Your task to perform on an android device: Do I have any events this weekend? Image 0: 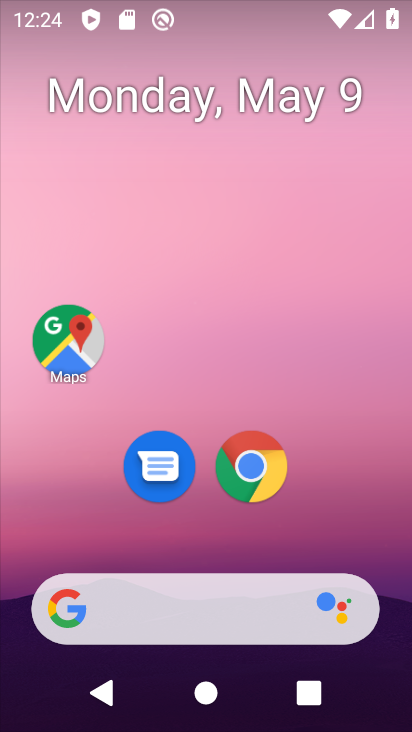
Step 0: drag from (388, 560) to (246, 99)
Your task to perform on an android device: Do I have any events this weekend? Image 1: 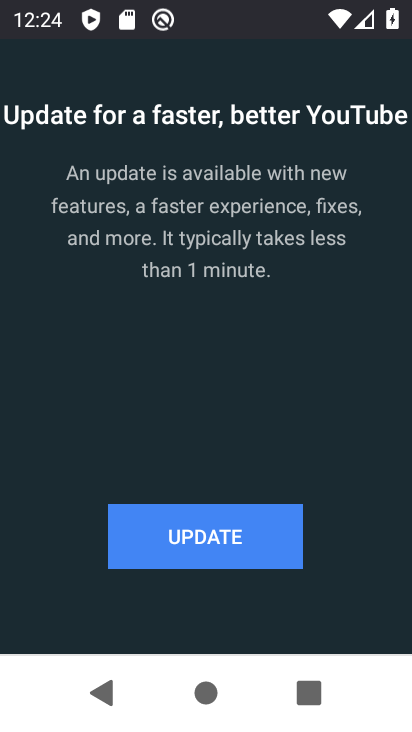
Step 1: press back button
Your task to perform on an android device: Do I have any events this weekend? Image 2: 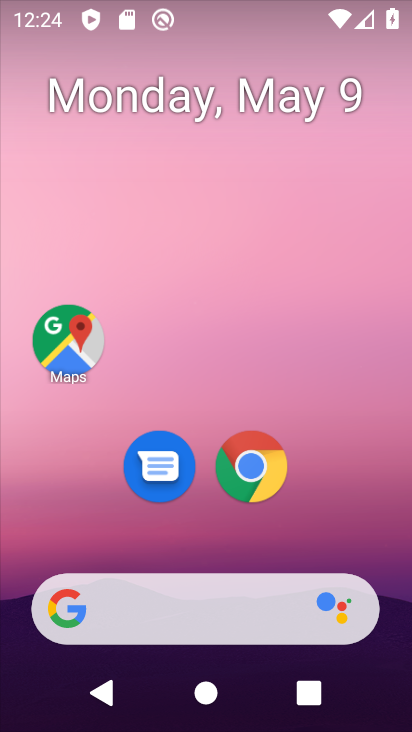
Step 2: drag from (400, 583) to (343, 181)
Your task to perform on an android device: Do I have any events this weekend? Image 3: 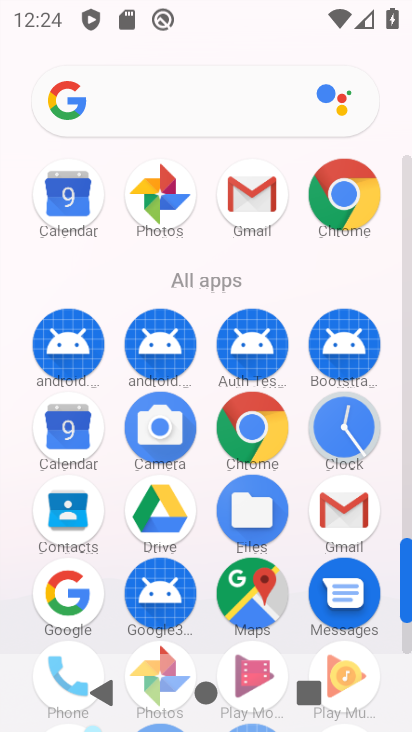
Step 3: click (61, 195)
Your task to perform on an android device: Do I have any events this weekend? Image 4: 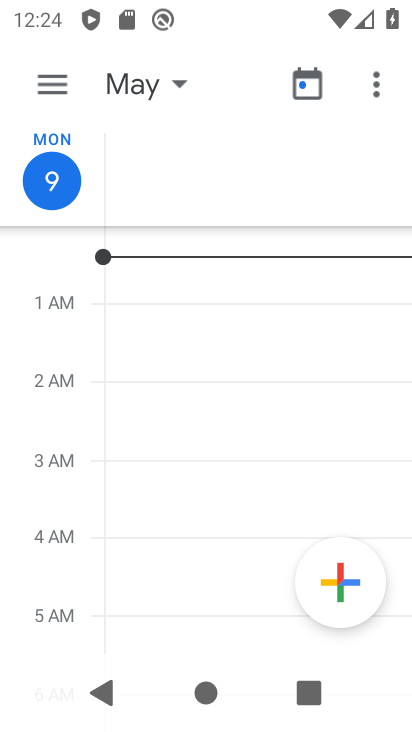
Step 4: click (44, 84)
Your task to perform on an android device: Do I have any events this weekend? Image 5: 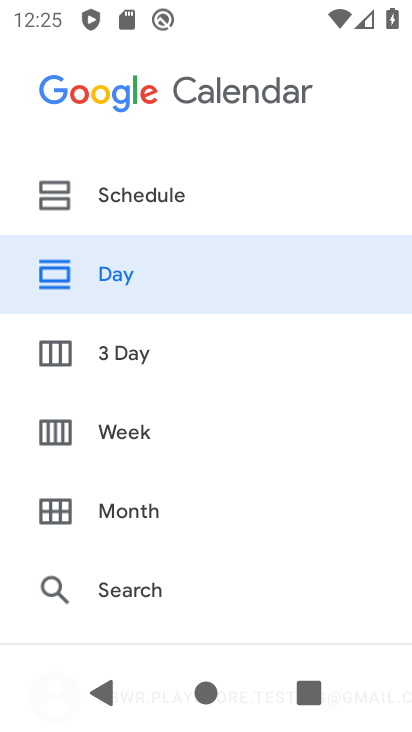
Step 5: click (180, 340)
Your task to perform on an android device: Do I have any events this weekend? Image 6: 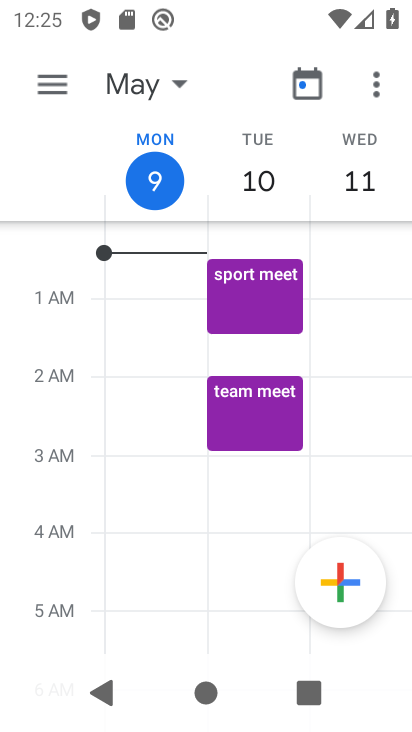
Step 6: click (171, 78)
Your task to perform on an android device: Do I have any events this weekend? Image 7: 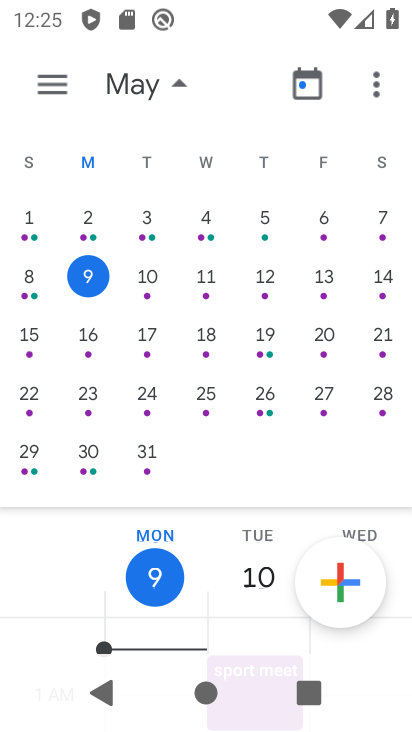
Step 7: click (322, 283)
Your task to perform on an android device: Do I have any events this weekend? Image 8: 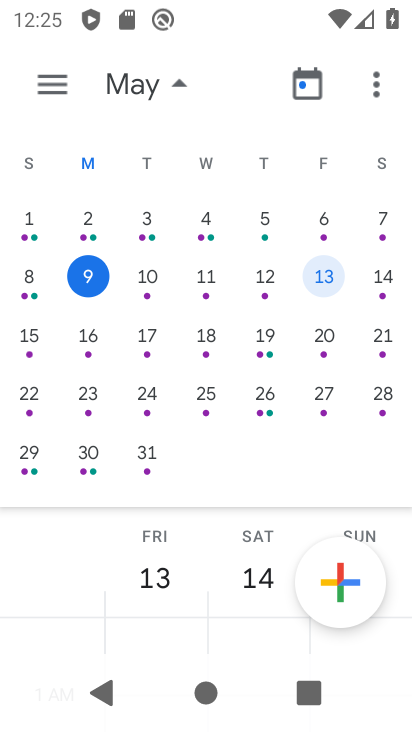
Step 8: click (167, 93)
Your task to perform on an android device: Do I have any events this weekend? Image 9: 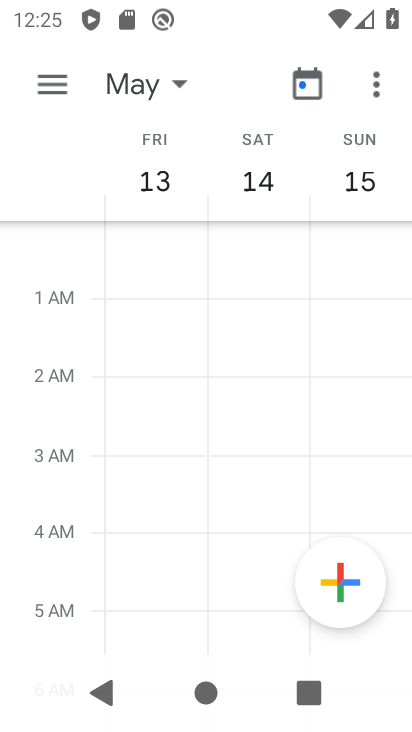
Step 9: task complete